Your task to perform on an android device: all mails in gmail Image 0: 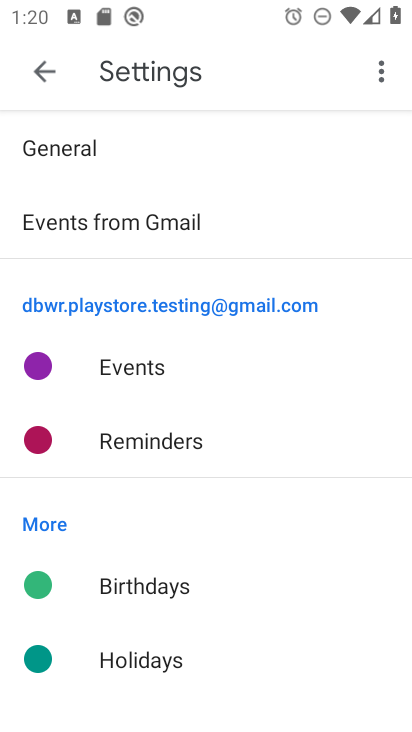
Step 0: press home button
Your task to perform on an android device: all mails in gmail Image 1: 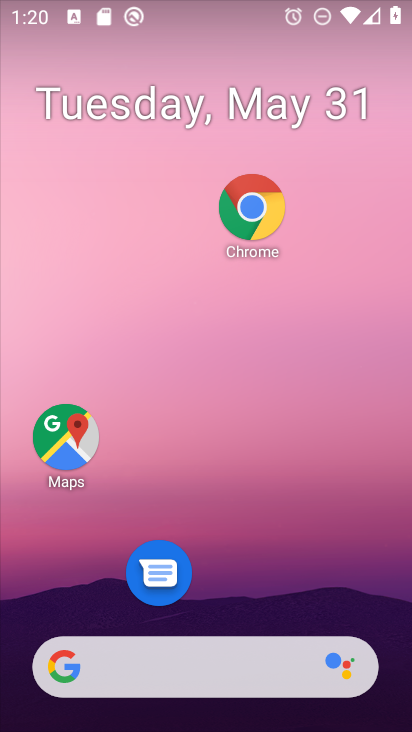
Step 1: drag from (257, 606) to (242, 190)
Your task to perform on an android device: all mails in gmail Image 2: 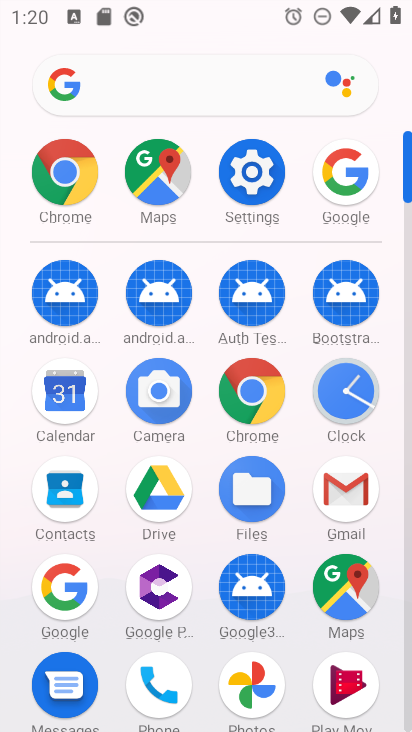
Step 2: click (348, 488)
Your task to perform on an android device: all mails in gmail Image 3: 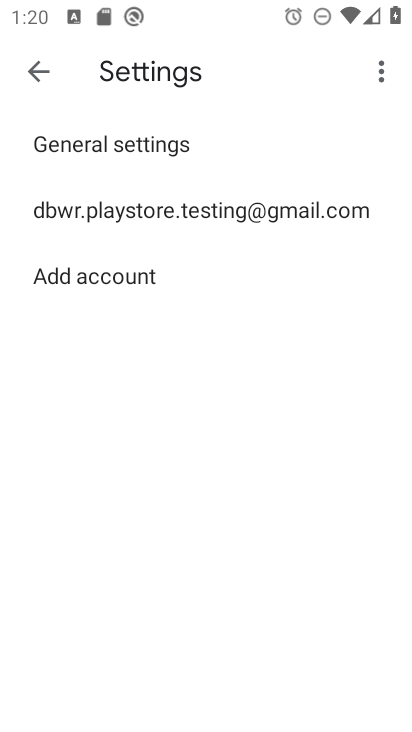
Step 3: click (37, 74)
Your task to perform on an android device: all mails in gmail Image 4: 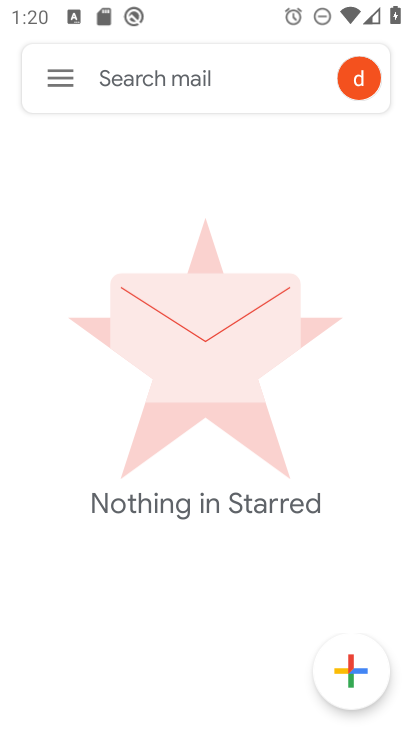
Step 4: click (55, 87)
Your task to perform on an android device: all mails in gmail Image 5: 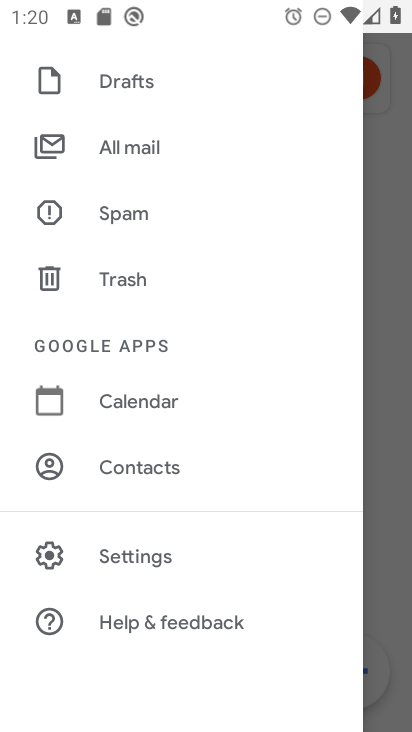
Step 5: click (173, 148)
Your task to perform on an android device: all mails in gmail Image 6: 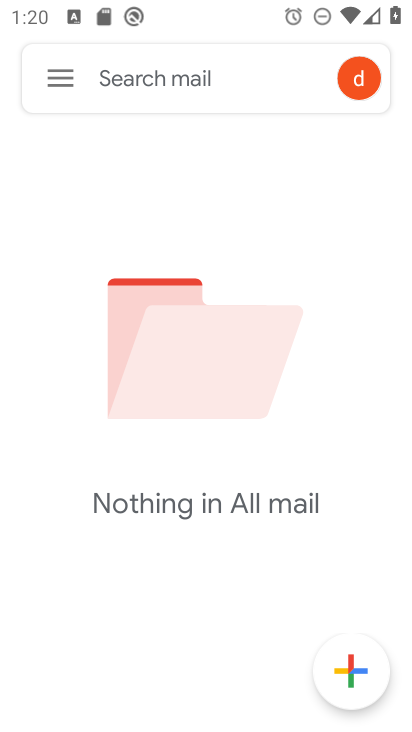
Step 6: task complete